Your task to perform on an android device: Find coffee shops on Maps Image 0: 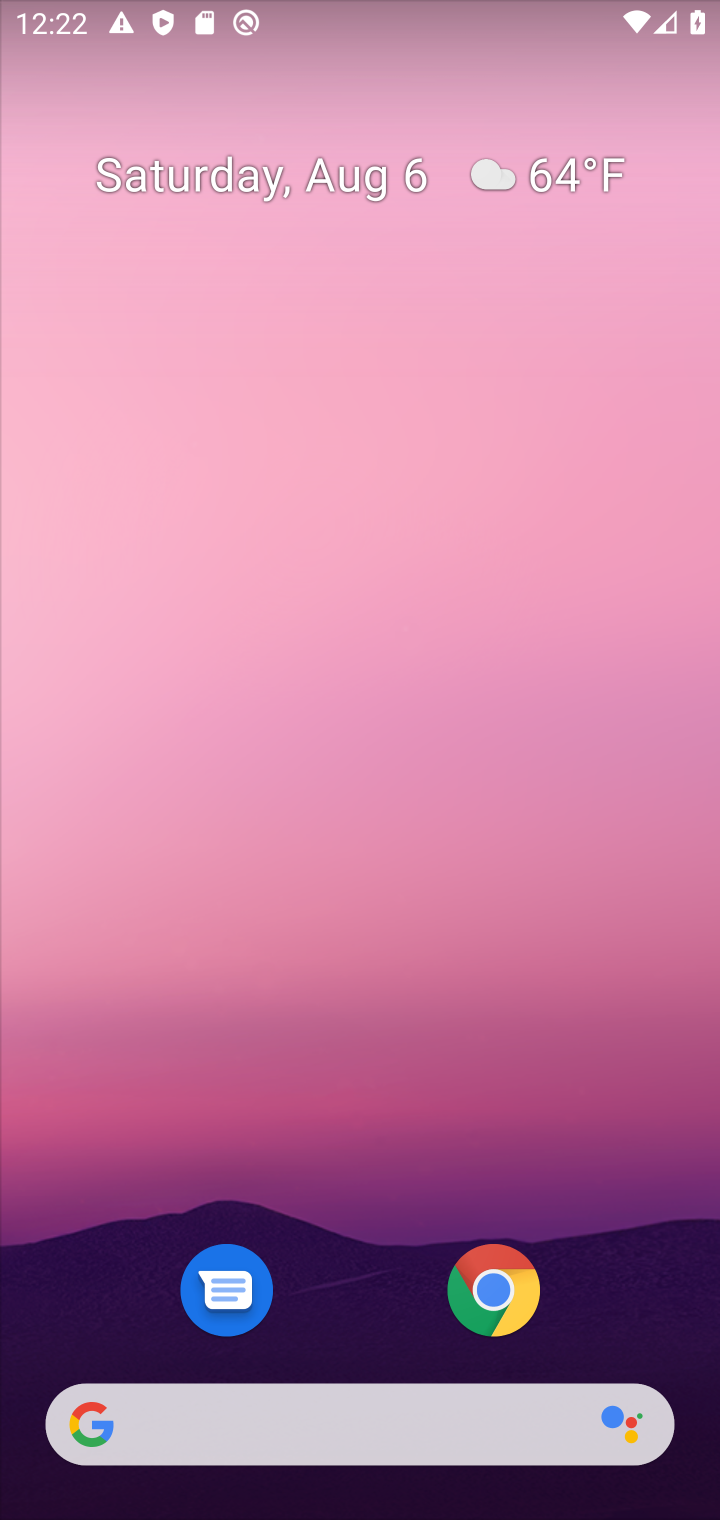
Step 0: drag from (360, 1318) to (382, 83)
Your task to perform on an android device: Find coffee shops on Maps Image 1: 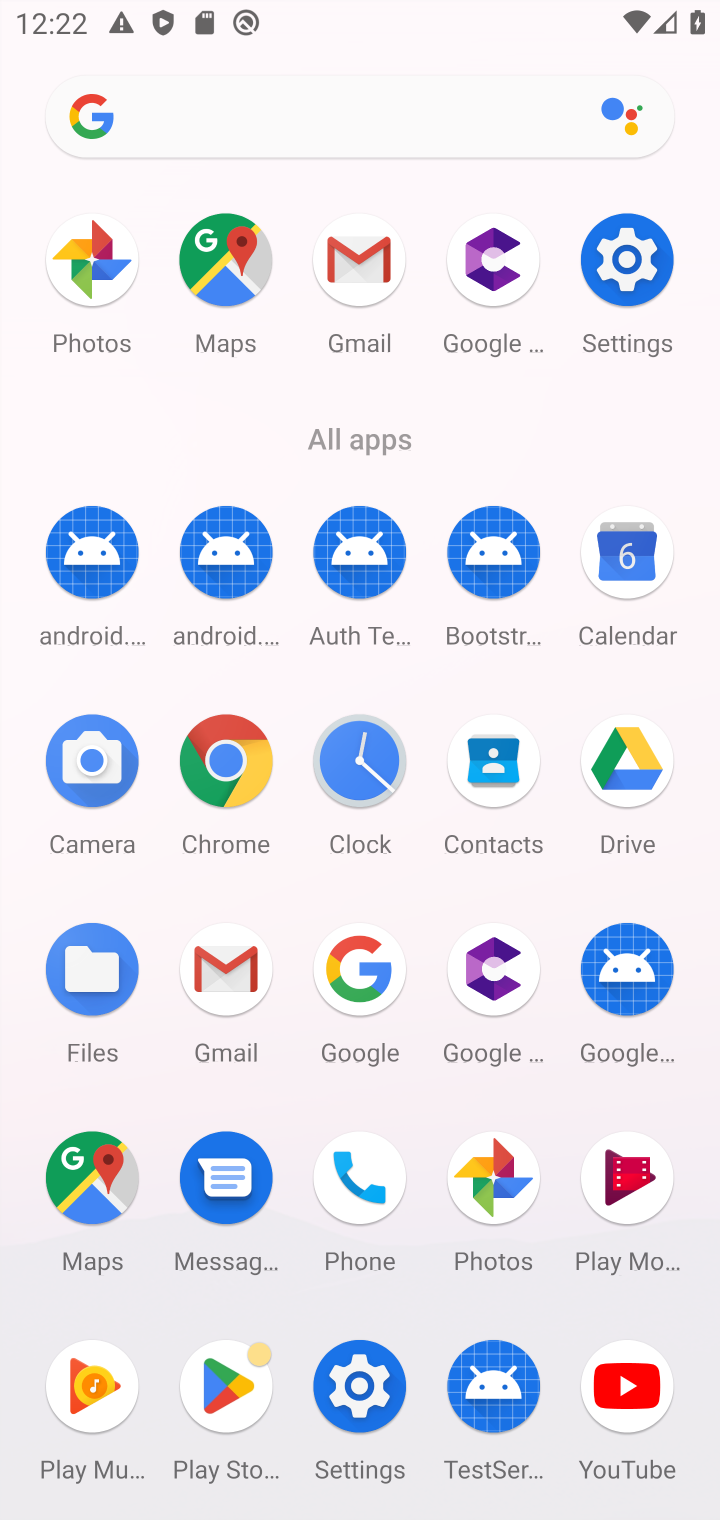
Step 1: click (234, 249)
Your task to perform on an android device: Find coffee shops on Maps Image 2: 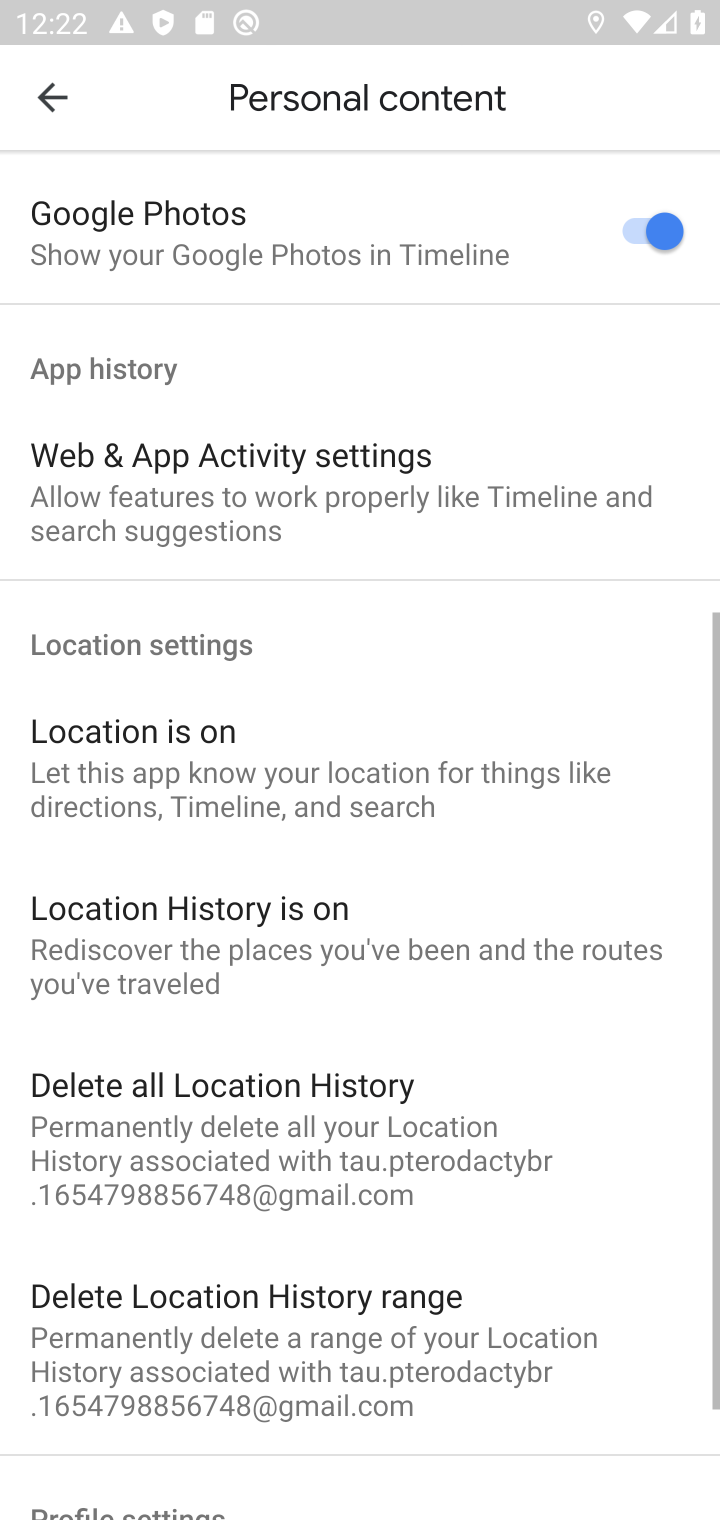
Step 2: click (64, 95)
Your task to perform on an android device: Find coffee shops on Maps Image 3: 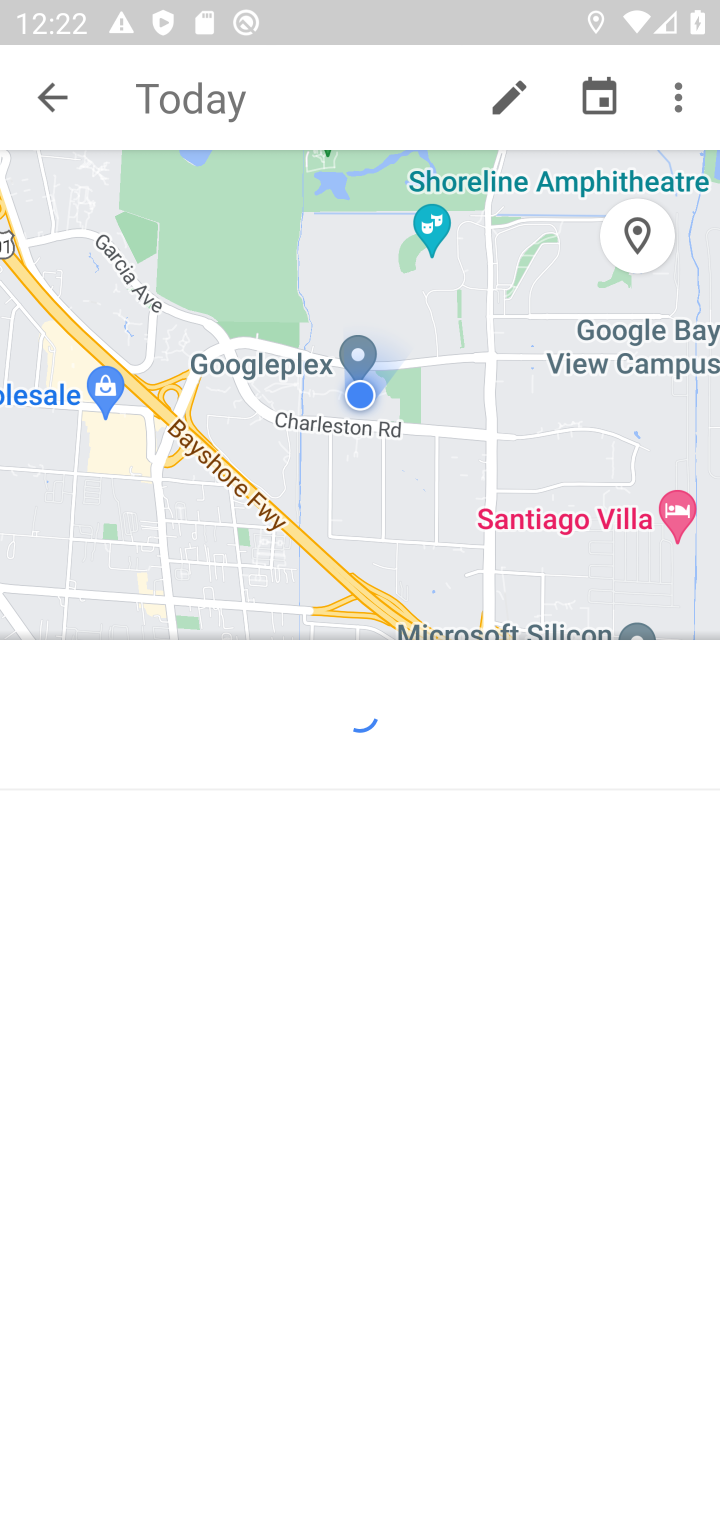
Step 3: click (43, 94)
Your task to perform on an android device: Find coffee shops on Maps Image 4: 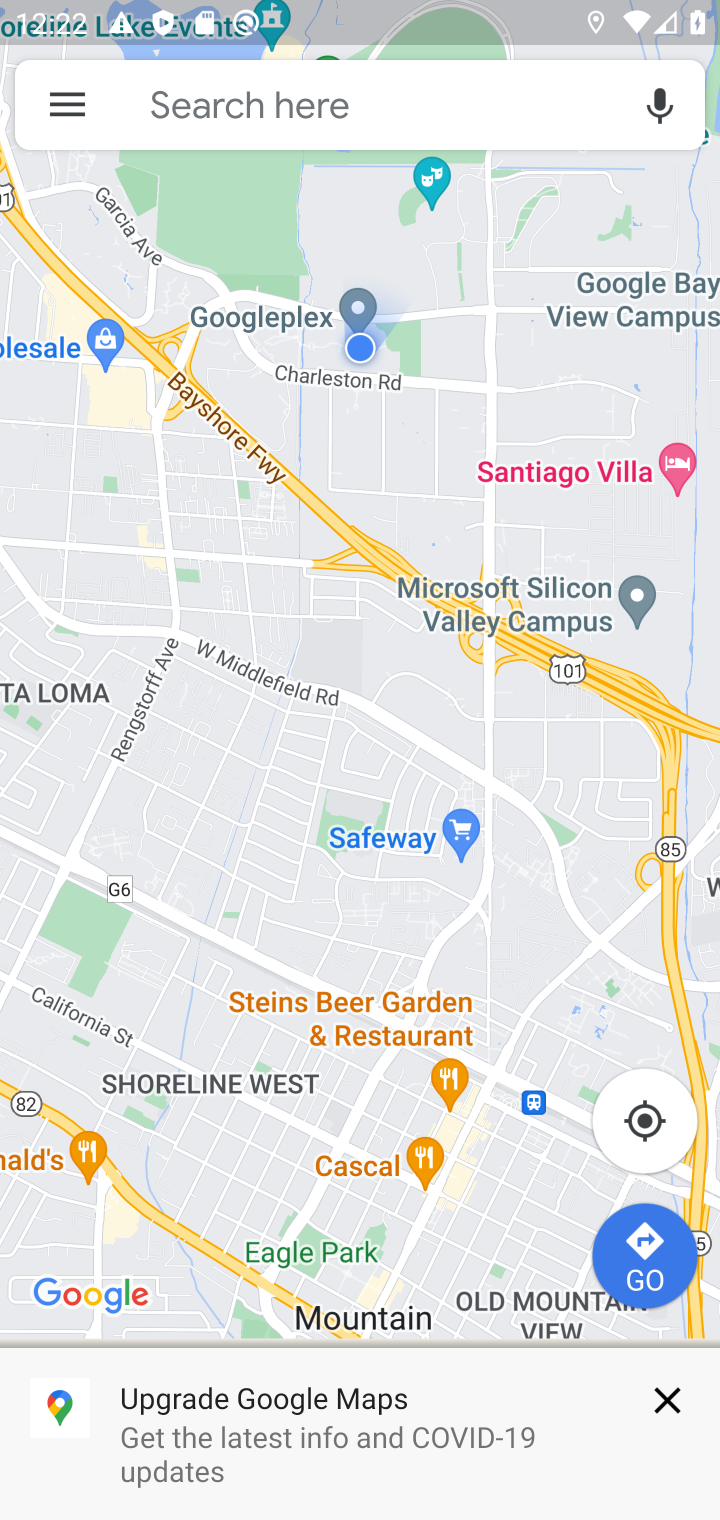
Step 4: click (214, 90)
Your task to perform on an android device: Find coffee shops on Maps Image 5: 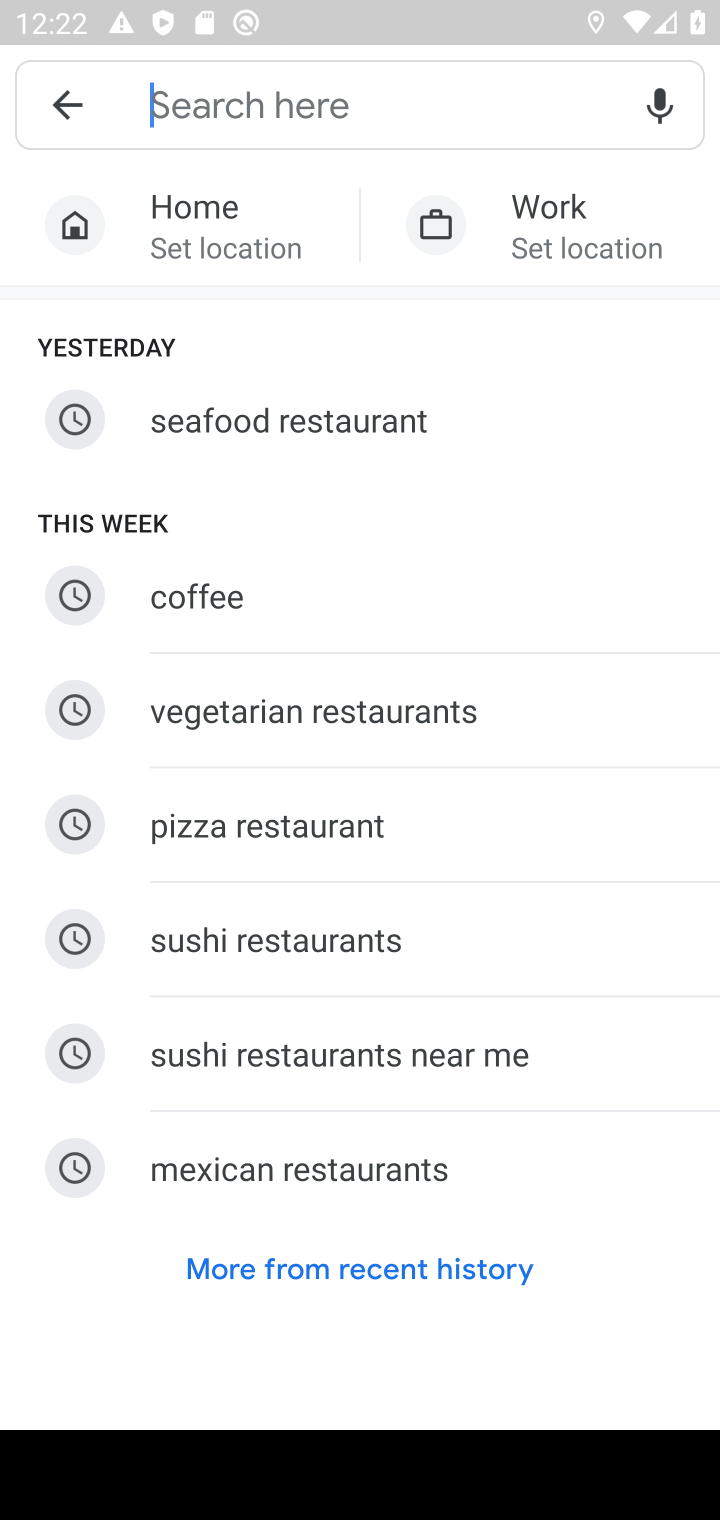
Step 5: click (257, 594)
Your task to perform on an android device: Find coffee shops on Maps Image 6: 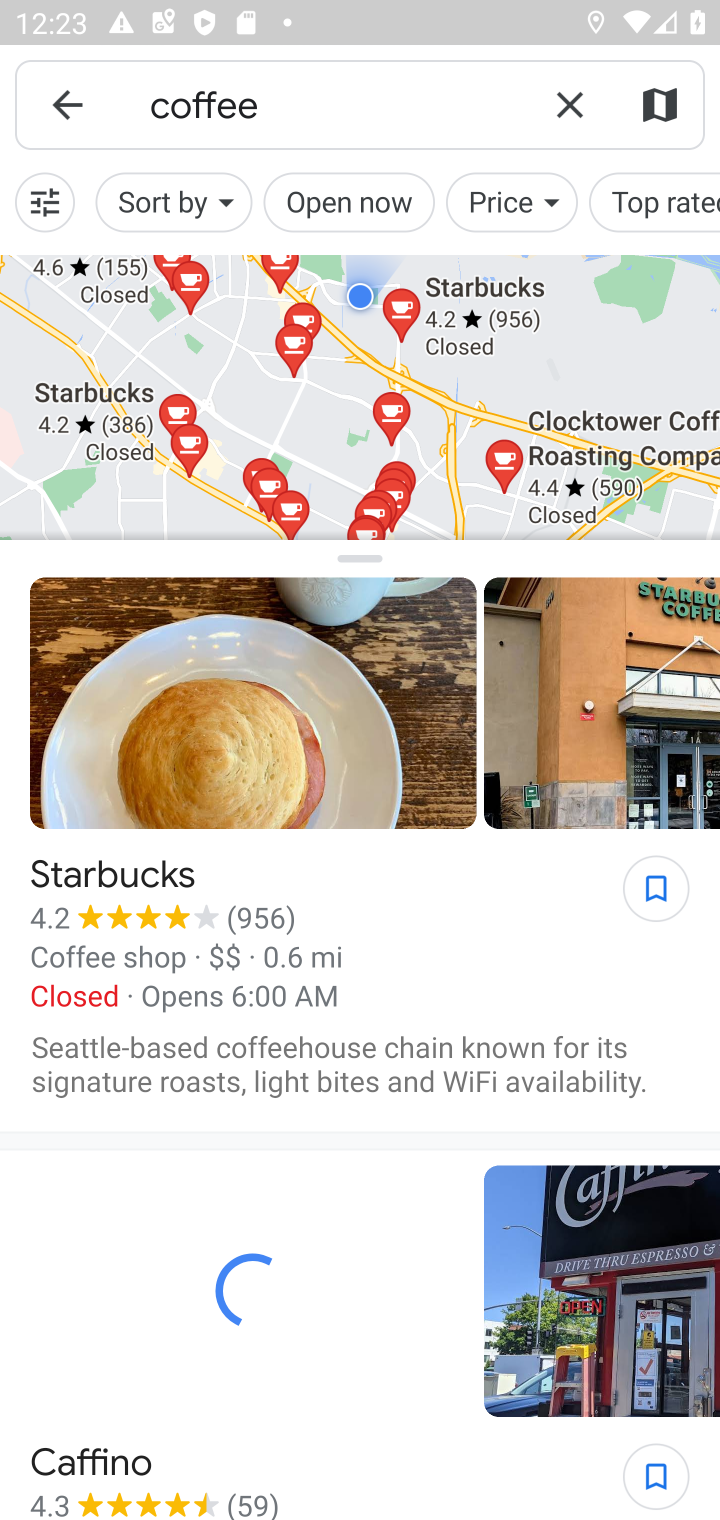
Step 6: task complete